Your task to perform on an android device: star an email in the gmail app Image 0: 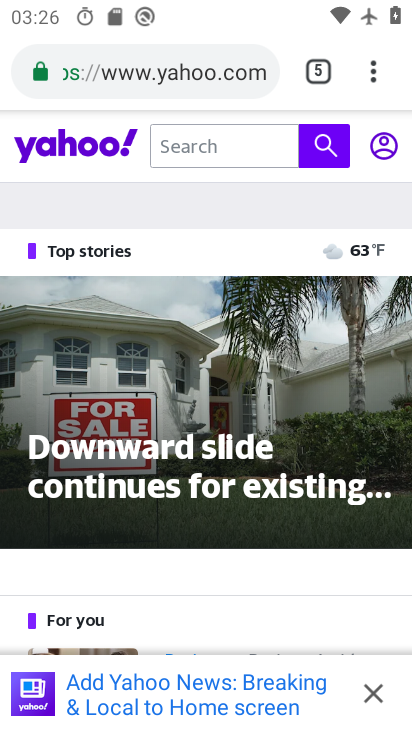
Step 0: press home button
Your task to perform on an android device: star an email in the gmail app Image 1: 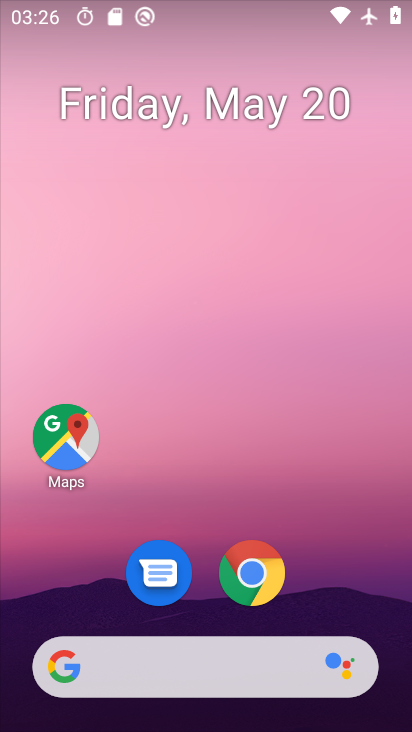
Step 1: drag from (200, 613) to (188, 210)
Your task to perform on an android device: star an email in the gmail app Image 2: 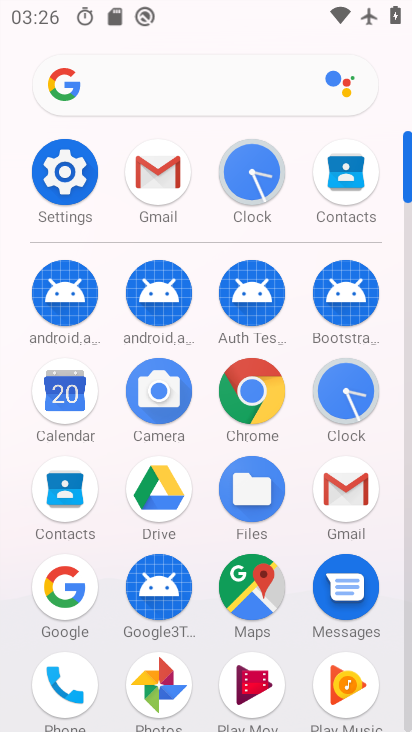
Step 2: click (167, 208)
Your task to perform on an android device: star an email in the gmail app Image 3: 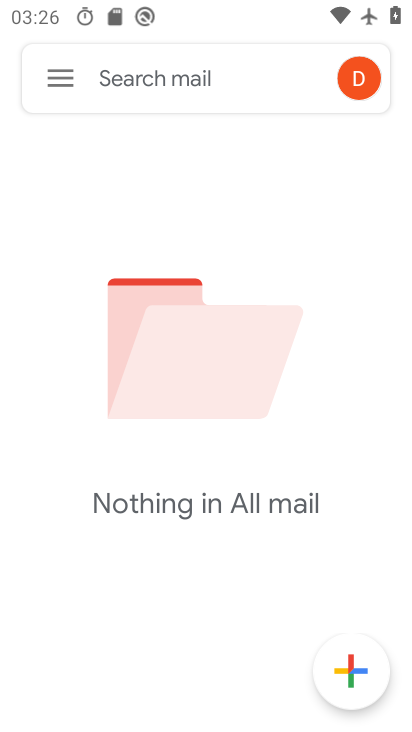
Step 3: click (56, 85)
Your task to perform on an android device: star an email in the gmail app Image 4: 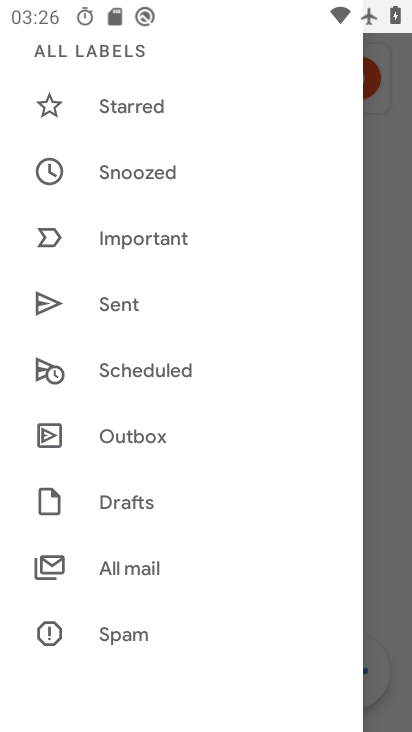
Step 4: click (147, 568)
Your task to perform on an android device: star an email in the gmail app Image 5: 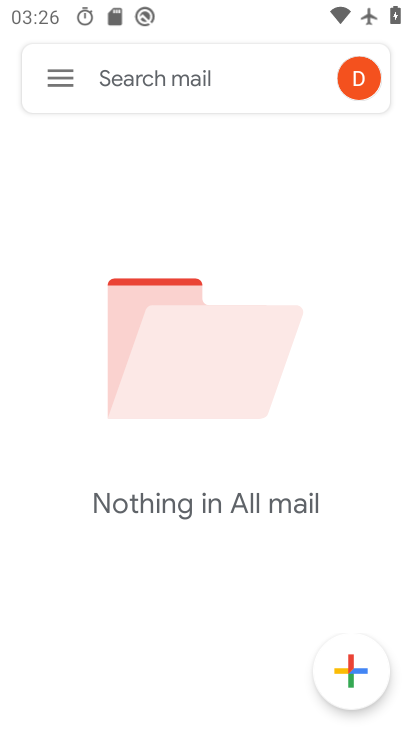
Step 5: task complete